Your task to perform on an android device: Search for Italian restaurants on Maps Image 0: 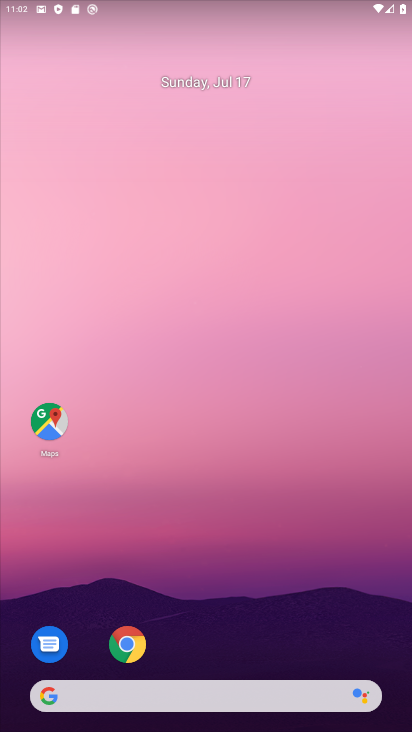
Step 0: drag from (279, 352) to (301, 169)
Your task to perform on an android device: Search for Italian restaurants on Maps Image 1: 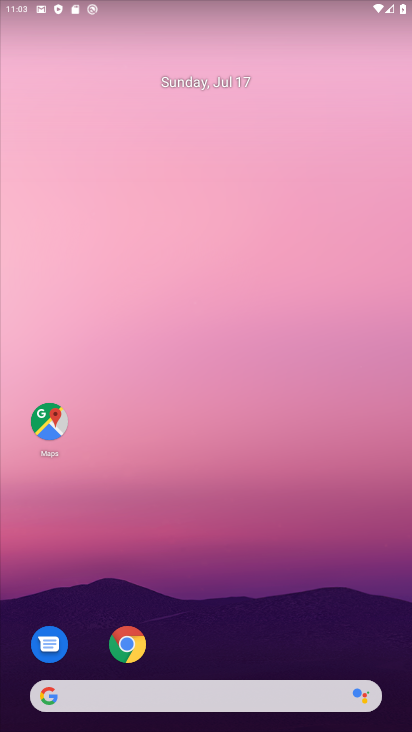
Step 1: drag from (194, 682) to (259, 207)
Your task to perform on an android device: Search for Italian restaurants on Maps Image 2: 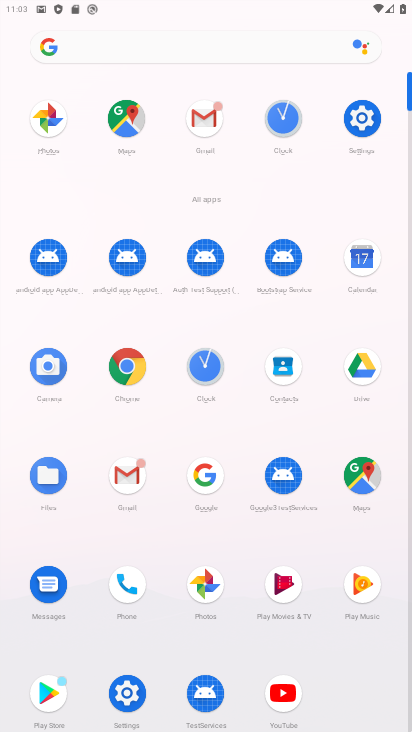
Step 2: click (380, 466)
Your task to perform on an android device: Search for Italian restaurants on Maps Image 3: 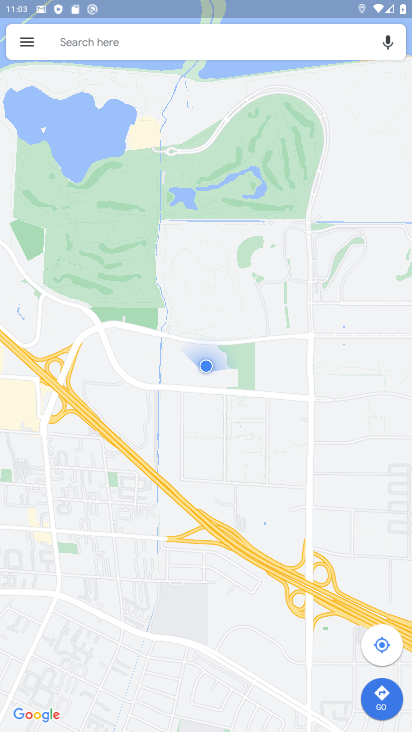
Step 3: click (120, 47)
Your task to perform on an android device: Search for Italian restaurants on Maps Image 4: 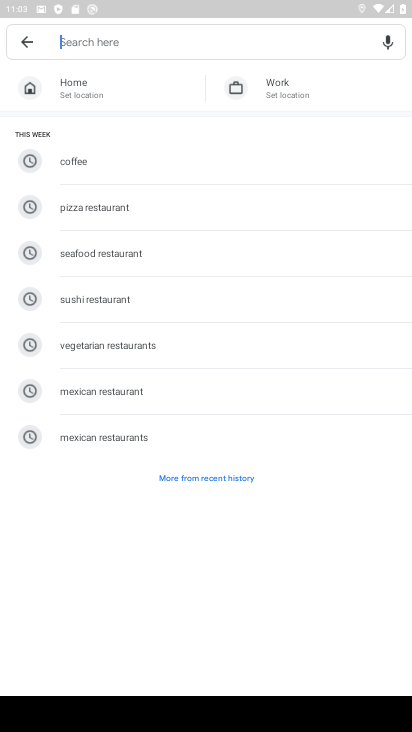
Step 4: type "Italian restaurants"
Your task to perform on an android device: Search for Italian restaurants on Maps Image 5: 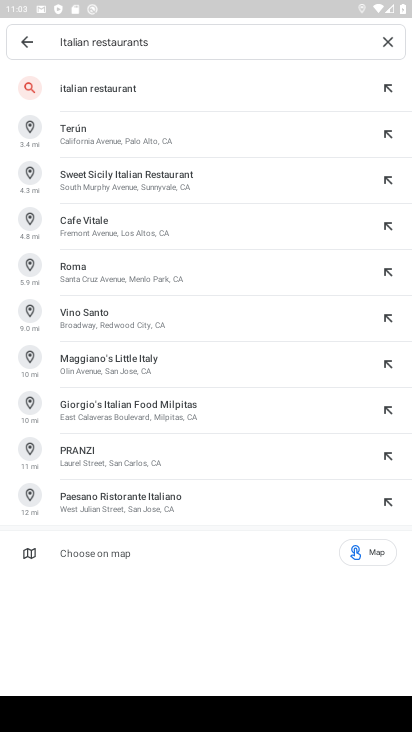
Step 5: click (167, 98)
Your task to perform on an android device: Search for Italian restaurants on Maps Image 6: 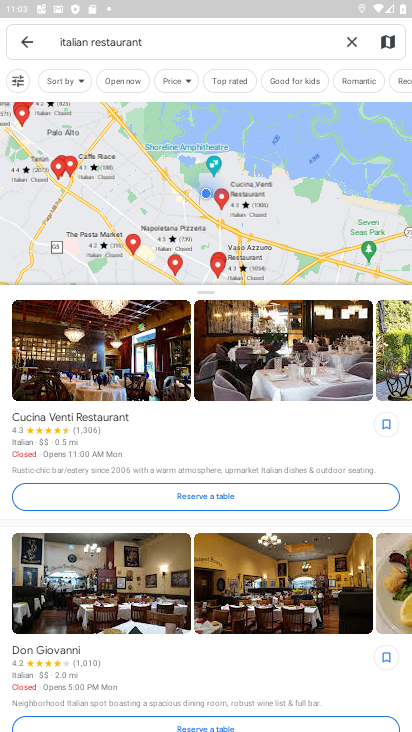
Step 6: task complete